Your task to perform on an android device: Add "logitech g pro" to the cart on bestbuy.com Image 0: 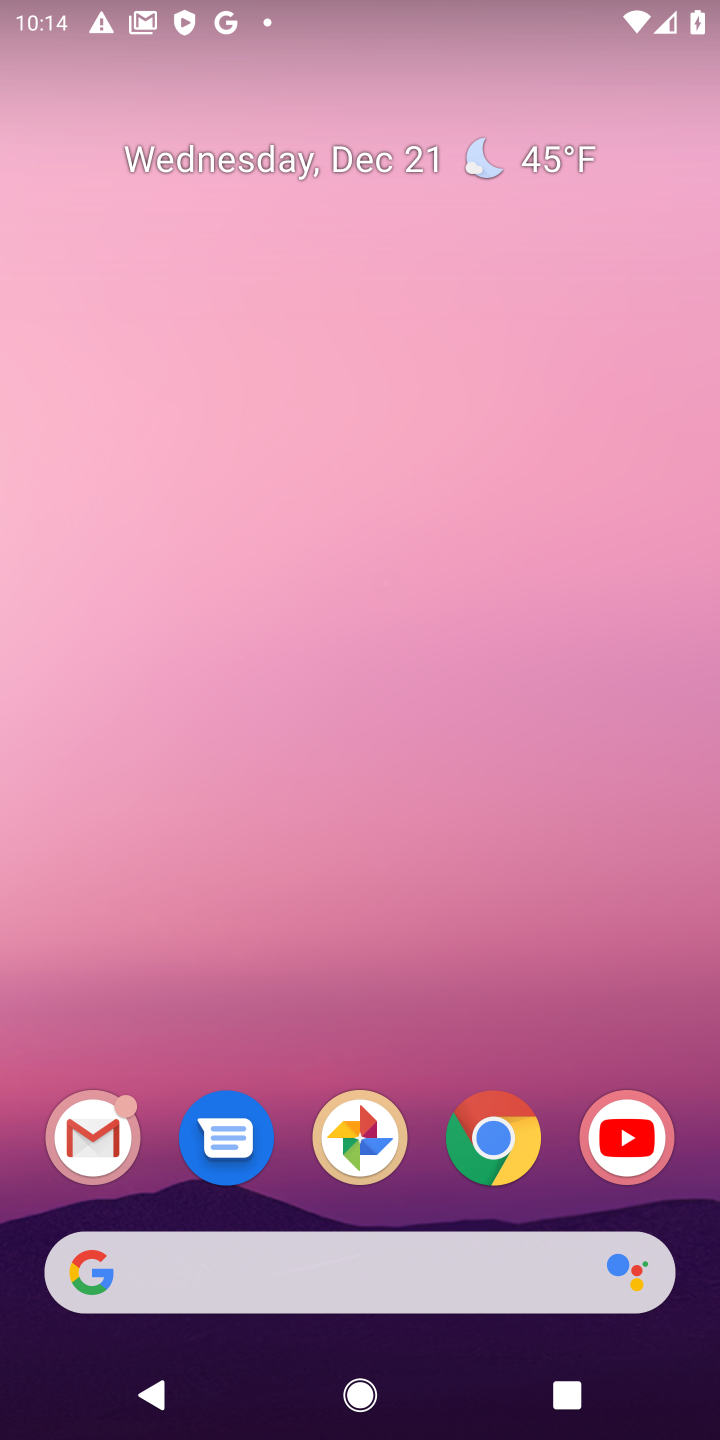
Step 0: click (499, 1147)
Your task to perform on an android device: Add "logitech g pro" to the cart on bestbuy.com Image 1: 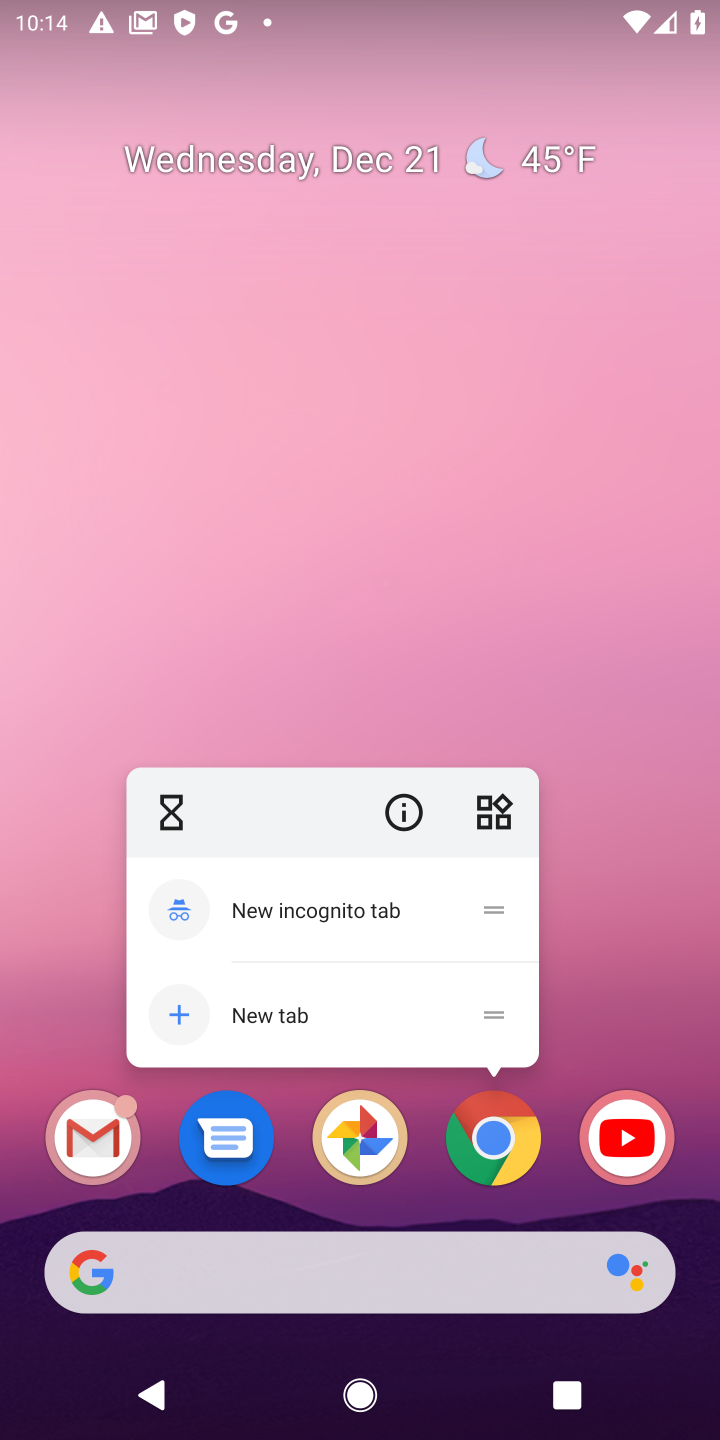
Step 1: click (499, 1147)
Your task to perform on an android device: Add "logitech g pro" to the cart on bestbuy.com Image 2: 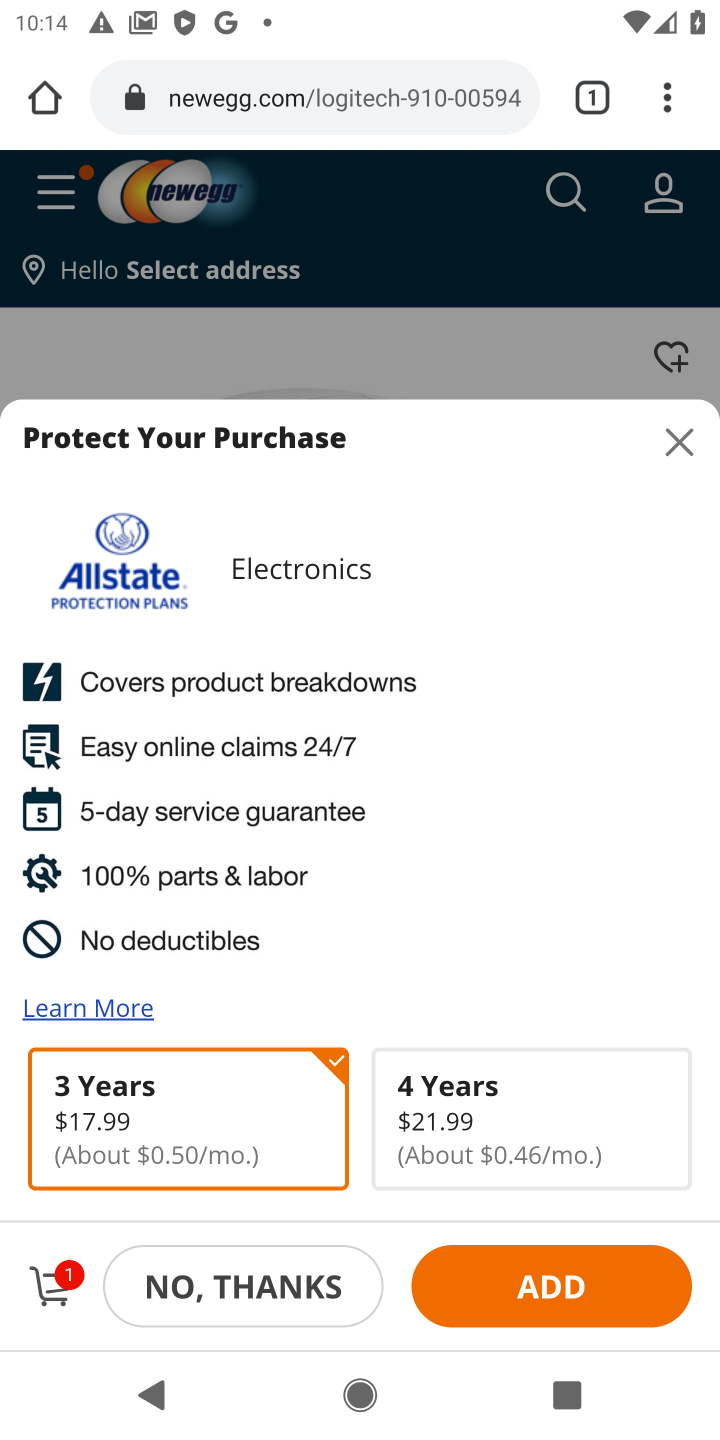
Step 2: click (268, 103)
Your task to perform on an android device: Add "logitech g pro" to the cart on bestbuy.com Image 3: 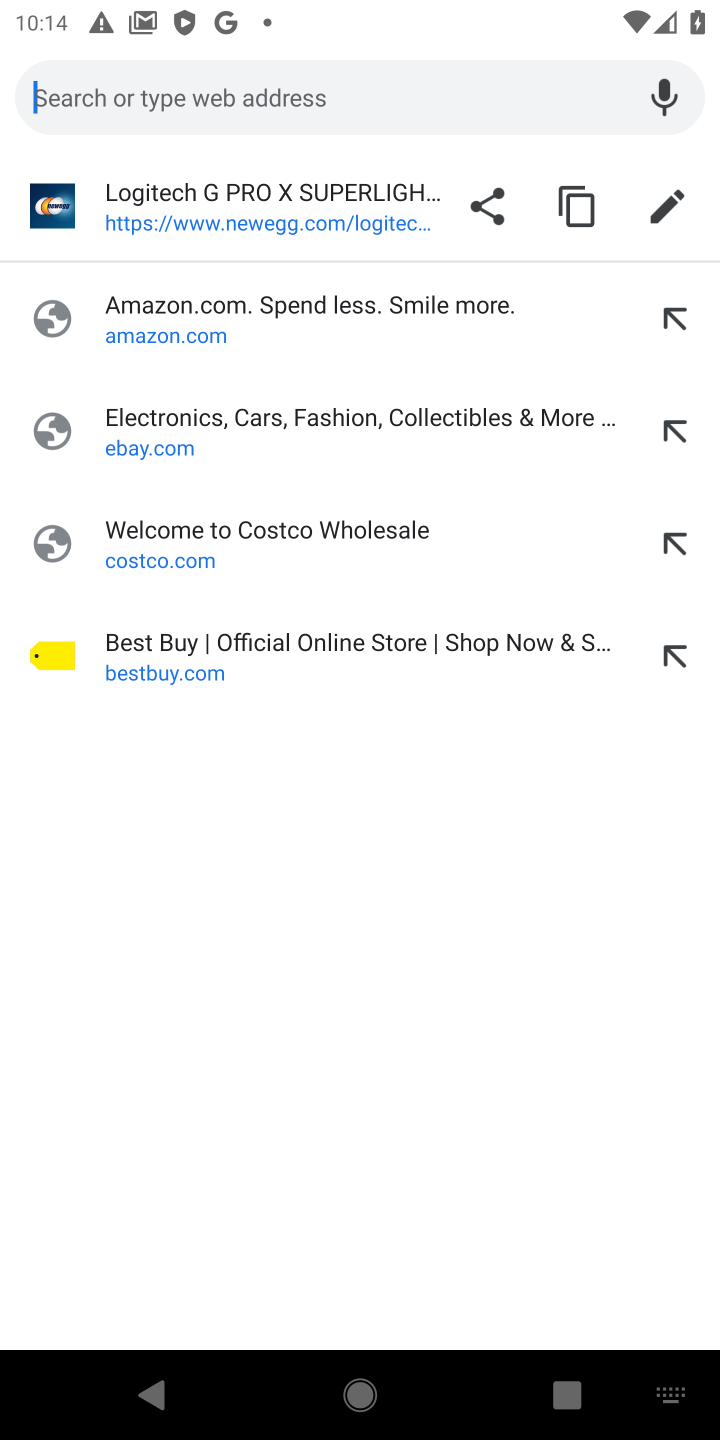
Step 3: click (159, 645)
Your task to perform on an android device: Add "logitech g pro" to the cart on bestbuy.com Image 4: 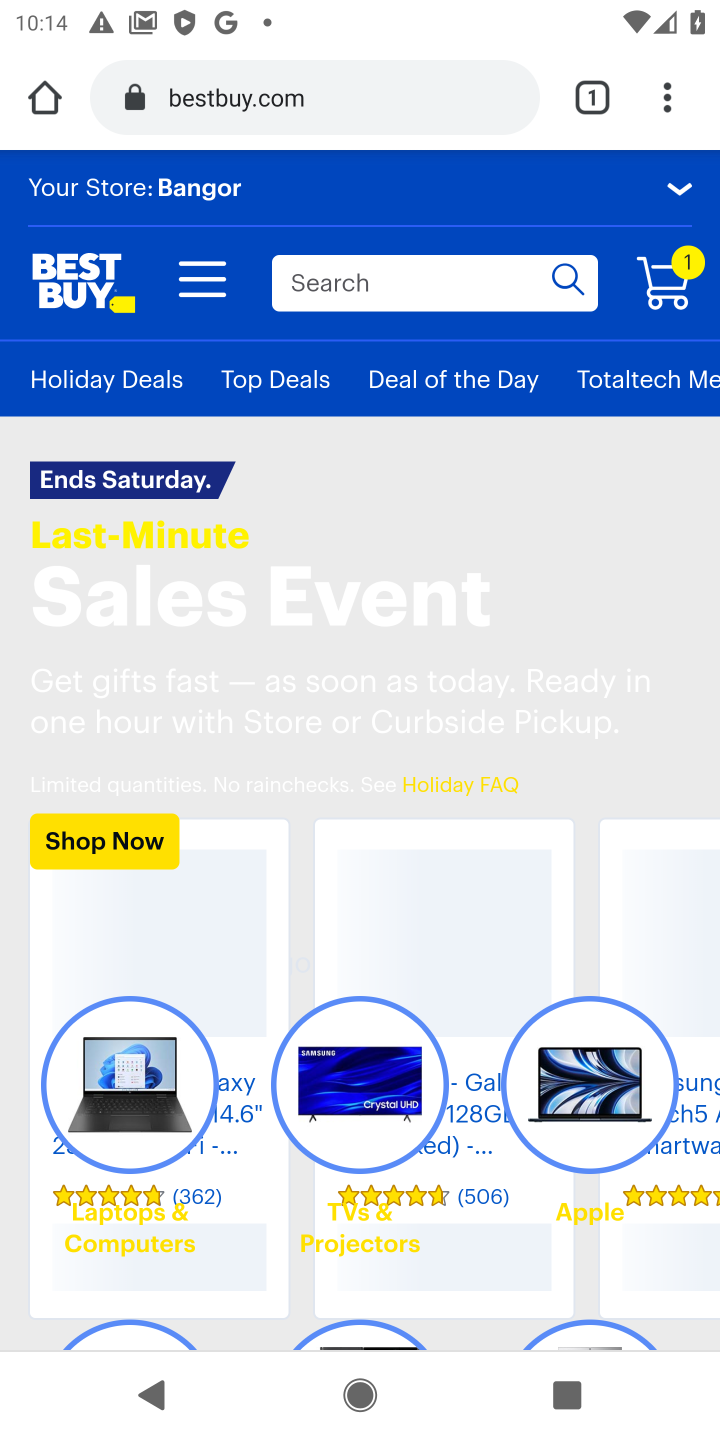
Step 4: click (350, 295)
Your task to perform on an android device: Add "logitech g pro" to the cart on bestbuy.com Image 5: 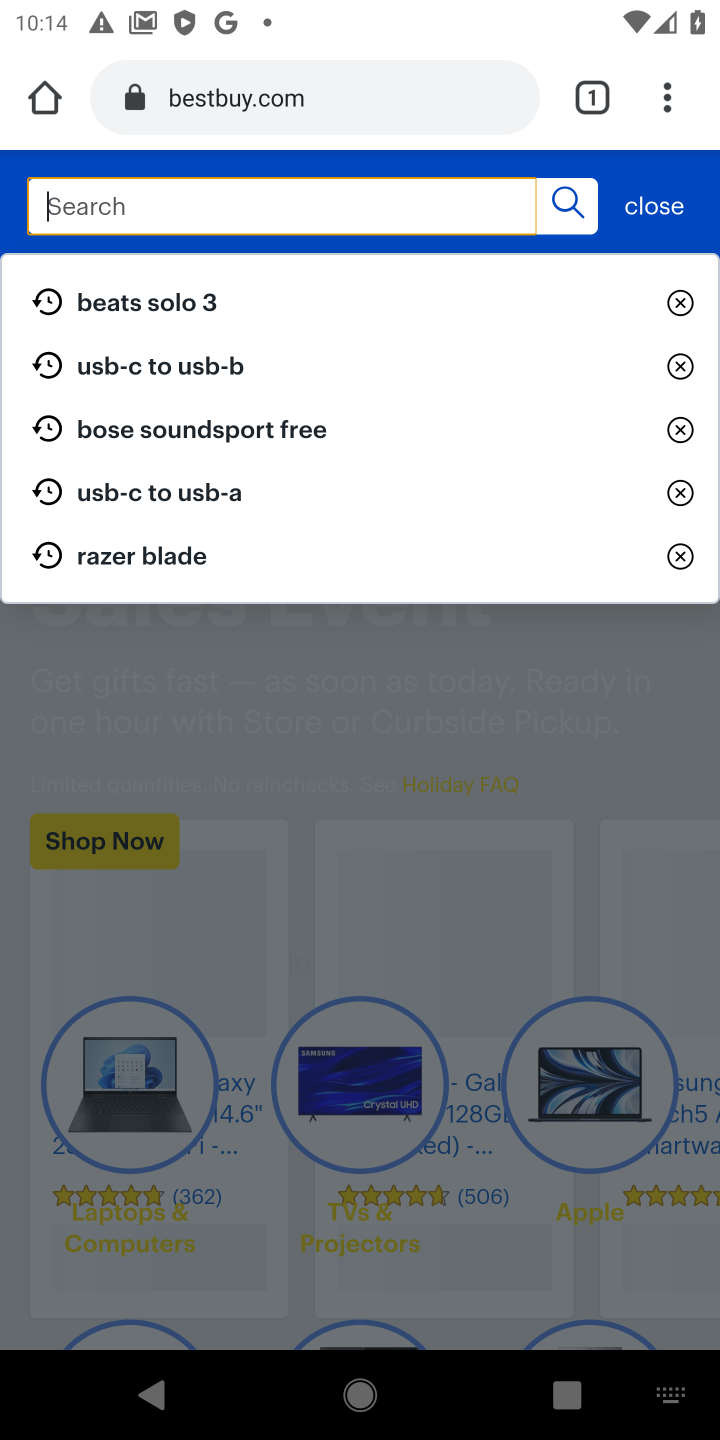
Step 5: type "logitech g pro"
Your task to perform on an android device: Add "logitech g pro" to the cart on bestbuy.com Image 6: 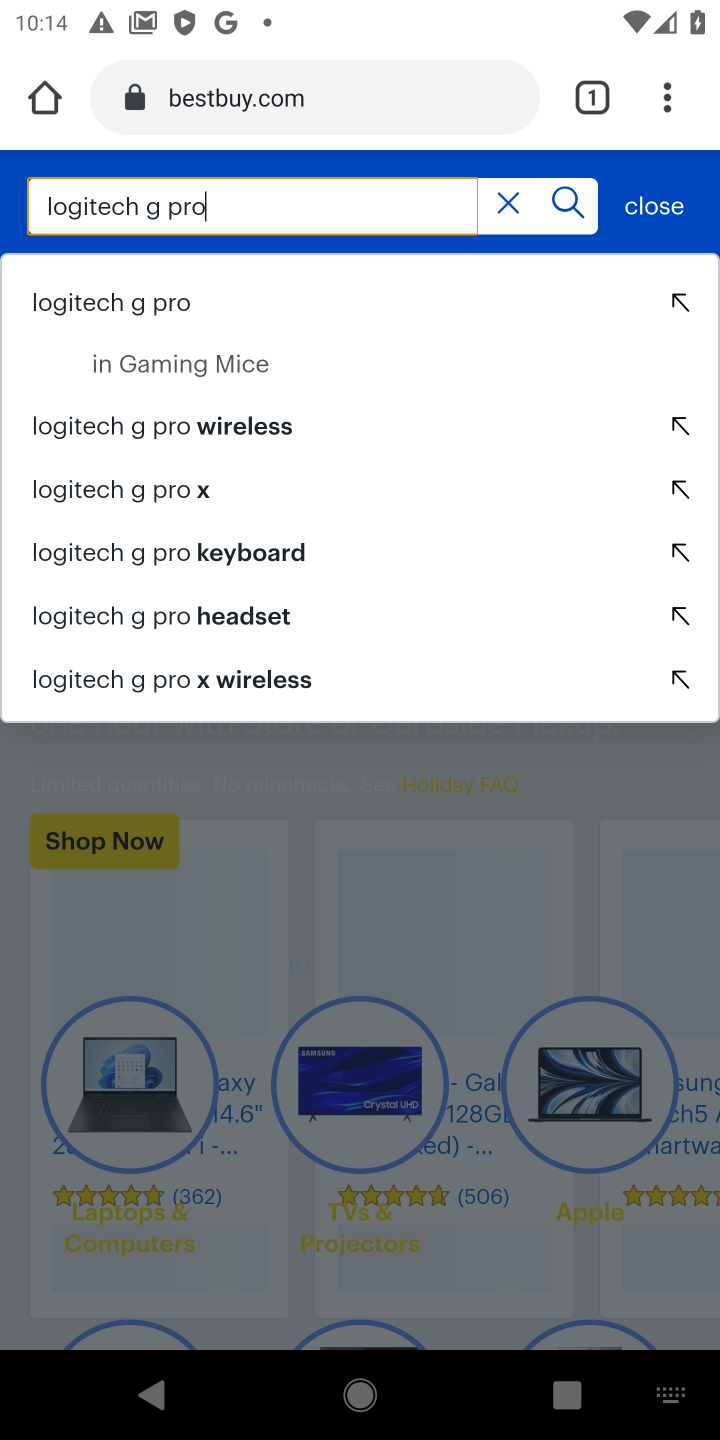
Step 6: click (91, 311)
Your task to perform on an android device: Add "logitech g pro" to the cart on bestbuy.com Image 7: 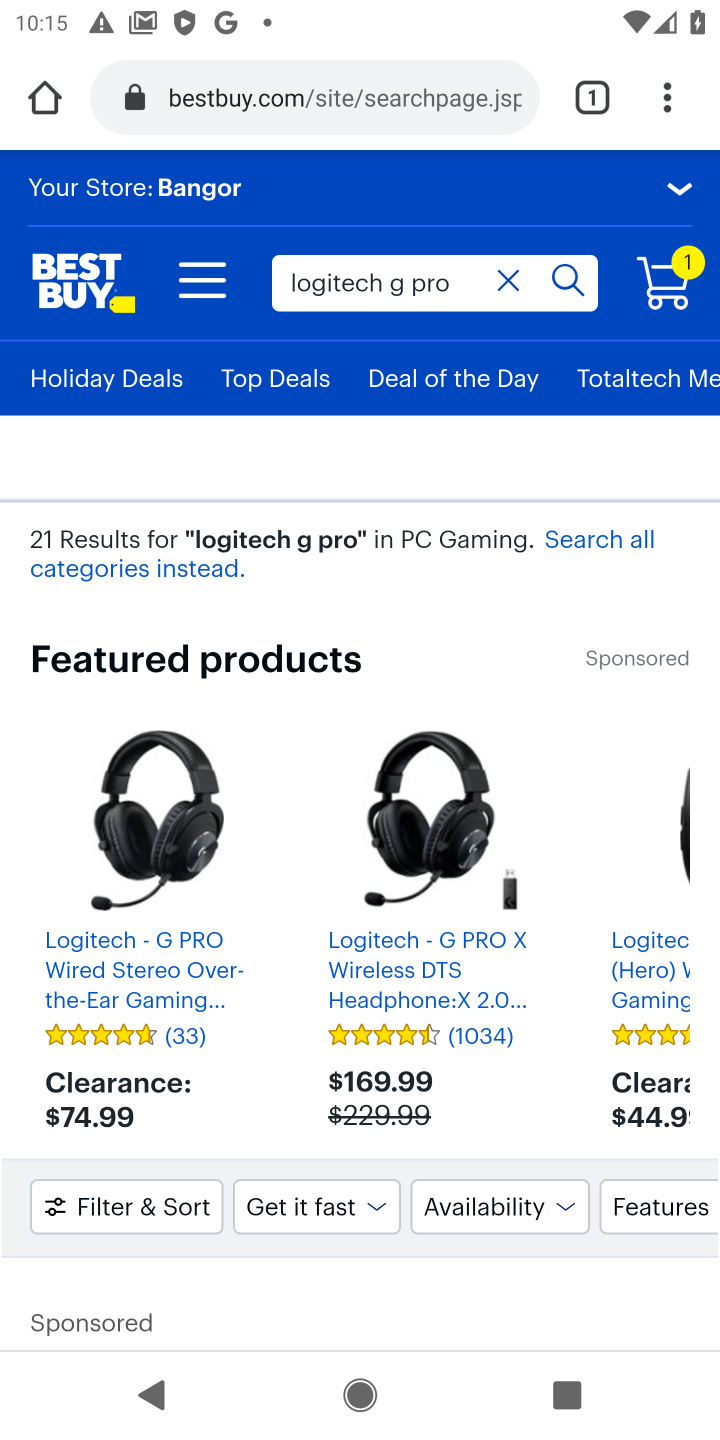
Step 7: drag from (315, 771) to (388, 332)
Your task to perform on an android device: Add "logitech g pro" to the cart on bestbuy.com Image 8: 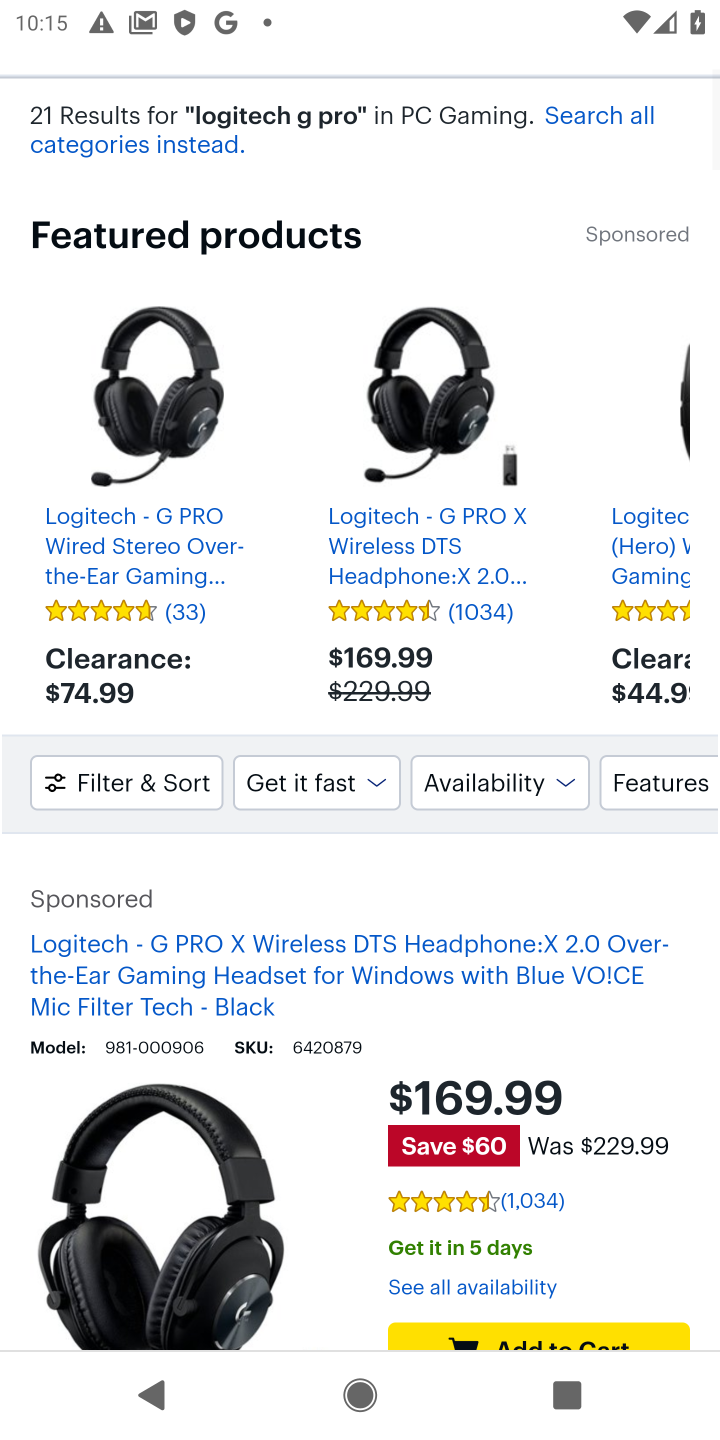
Step 8: drag from (316, 904) to (370, 233)
Your task to perform on an android device: Add "logitech g pro" to the cart on bestbuy.com Image 9: 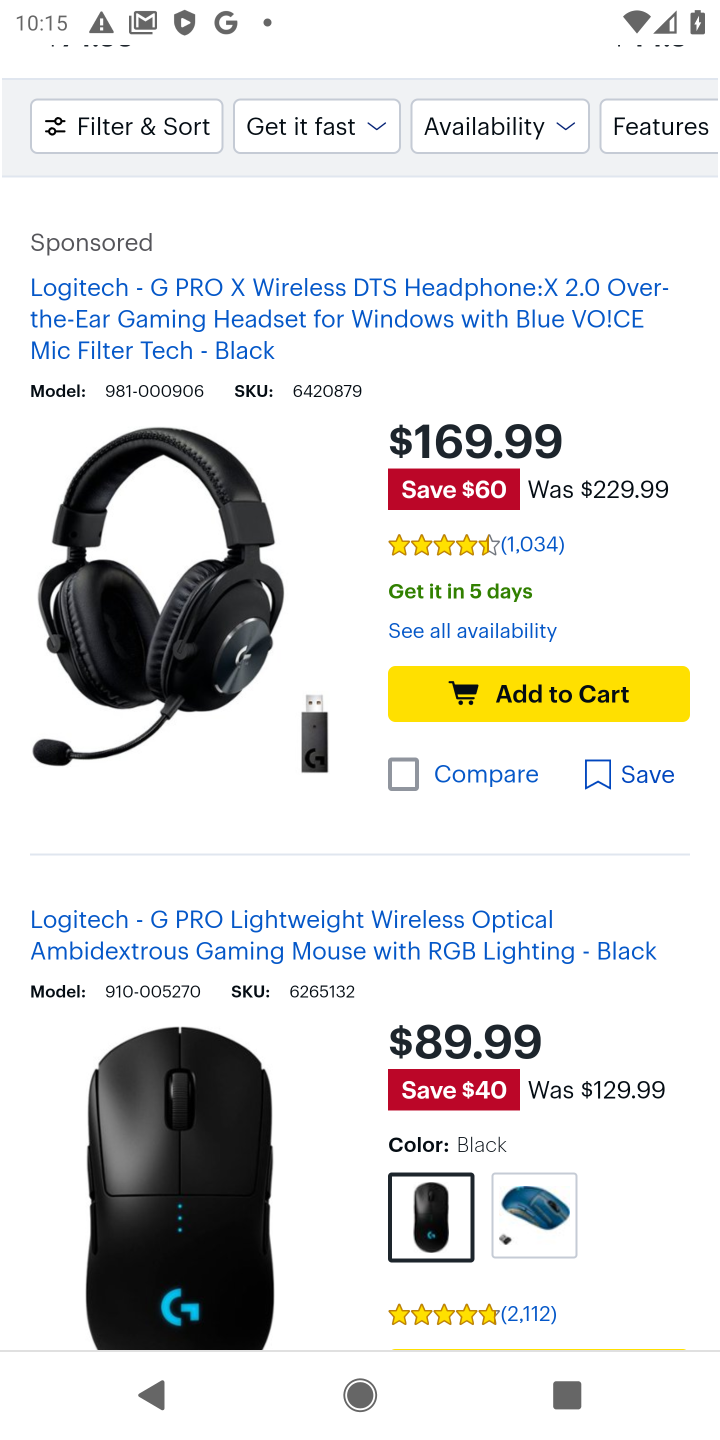
Step 9: click (547, 704)
Your task to perform on an android device: Add "logitech g pro" to the cart on bestbuy.com Image 10: 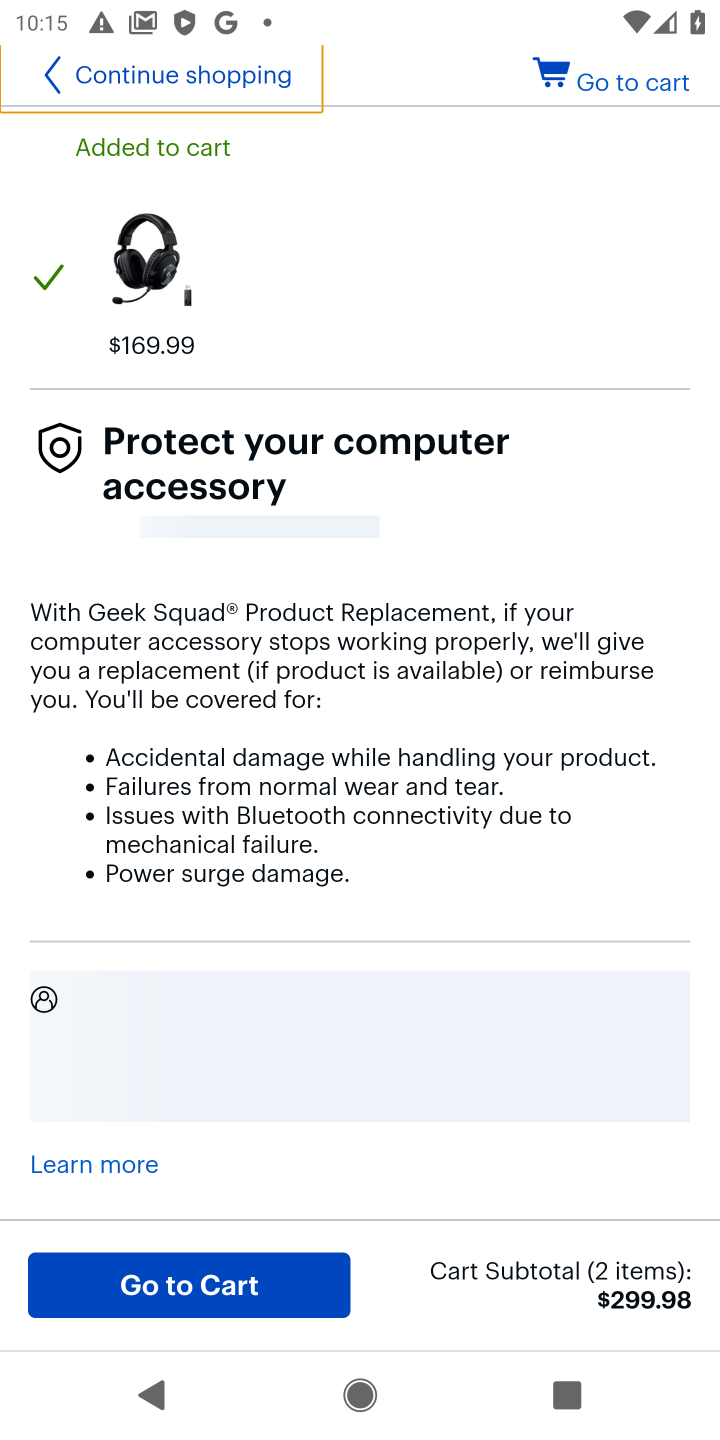
Step 10: task complete